Your task to perform on an android device: turn pop-ups on in chrome Image 0: 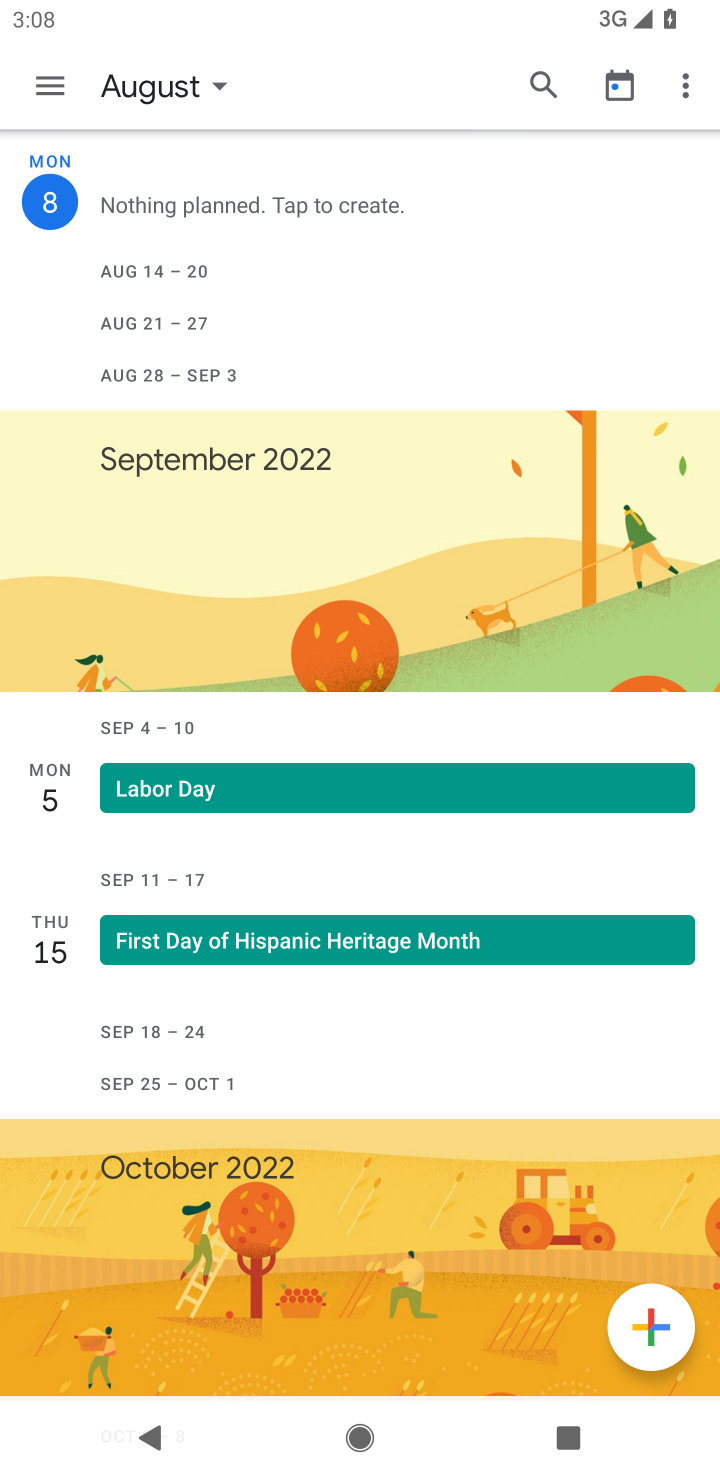
Step 0: press home button
Your task to perform on an android device: turn pop-ups on in chrome Image 1: 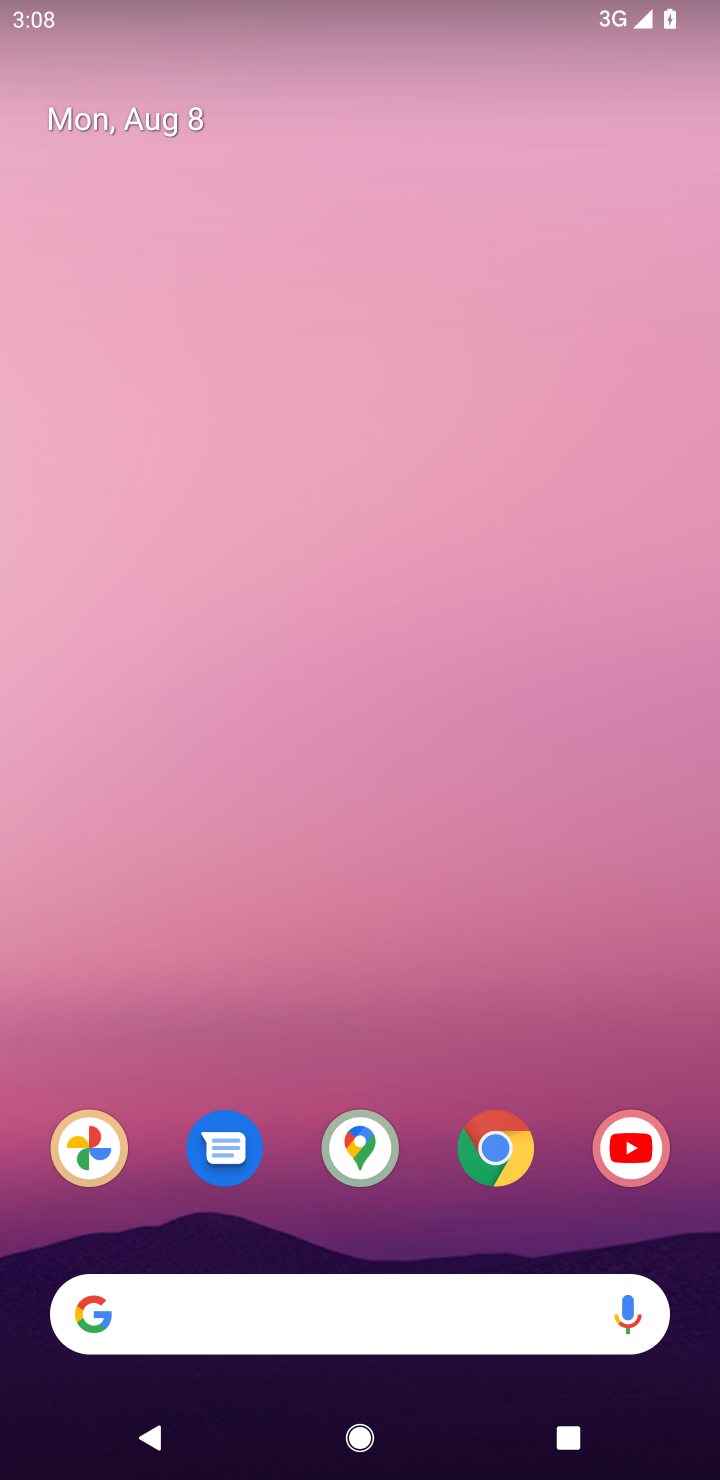
Step 1: click (507, 1165)
Your task to perform on an android device: turn pop-ups on in chrome Image 2: 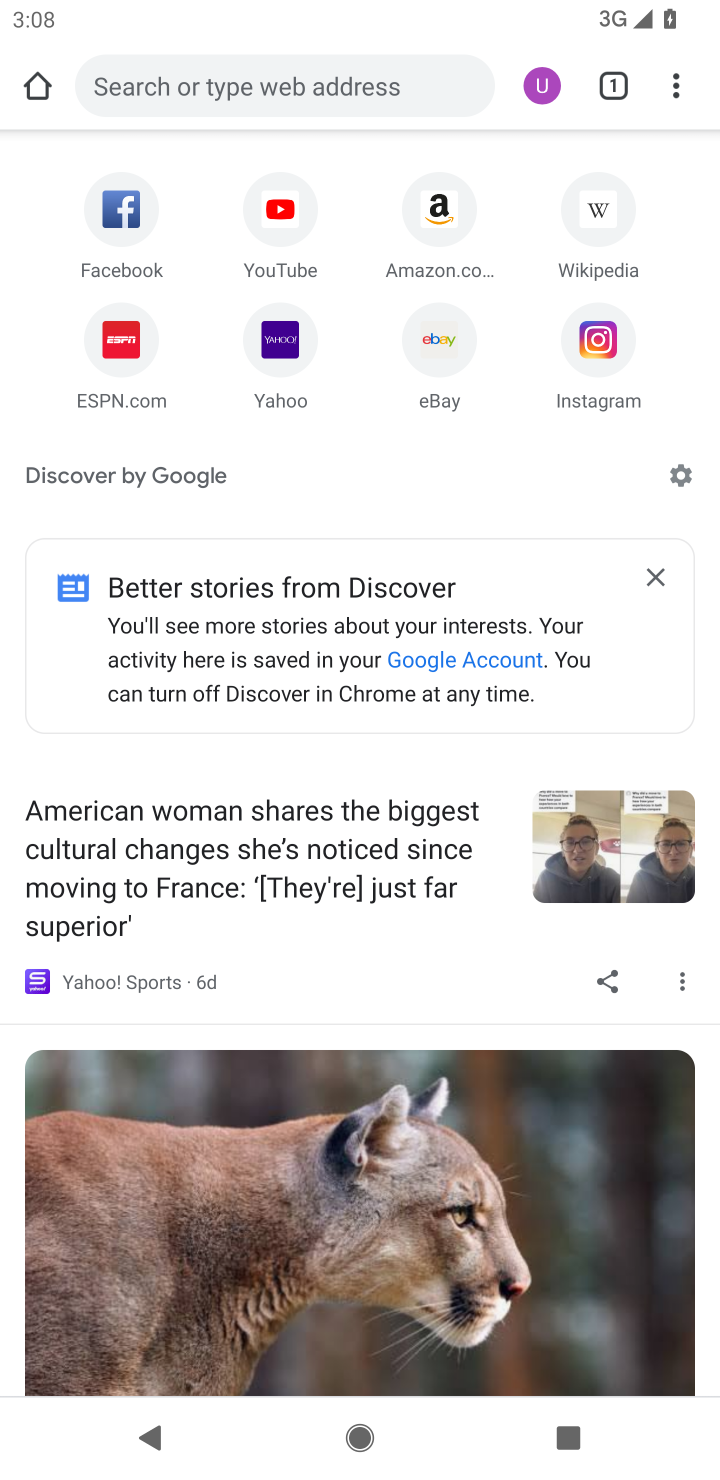
Step 2: click (683, 71)
Your task to perform on an android device: turn pop-ups on in chrome Image 3: 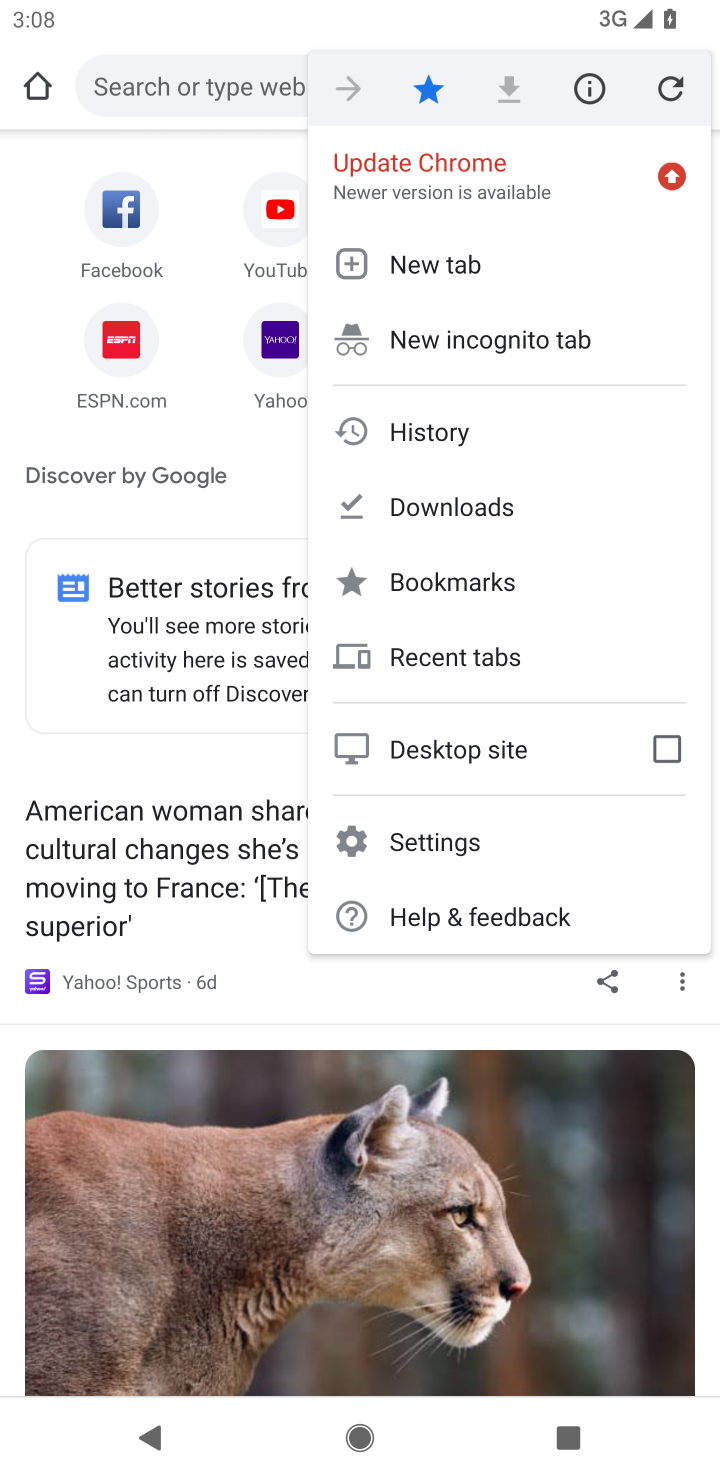
Step 3: click (482, 831)
Your task to perform on an android device: turn pop-ups on in chrome Image 4: 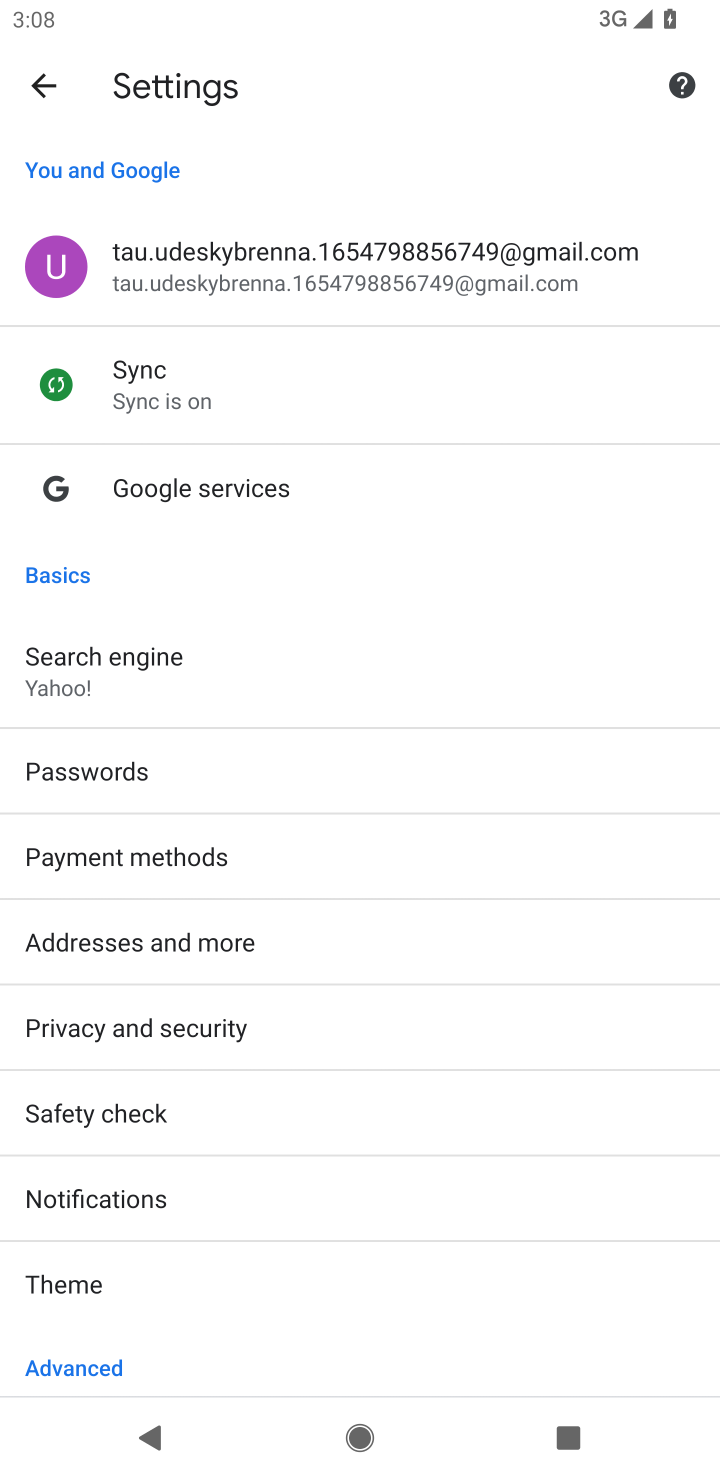
Step 4: drag from (274, 1287) to (326, 322)
Your task to perform on an android device: turn pop-ups on in chrome Image 5: 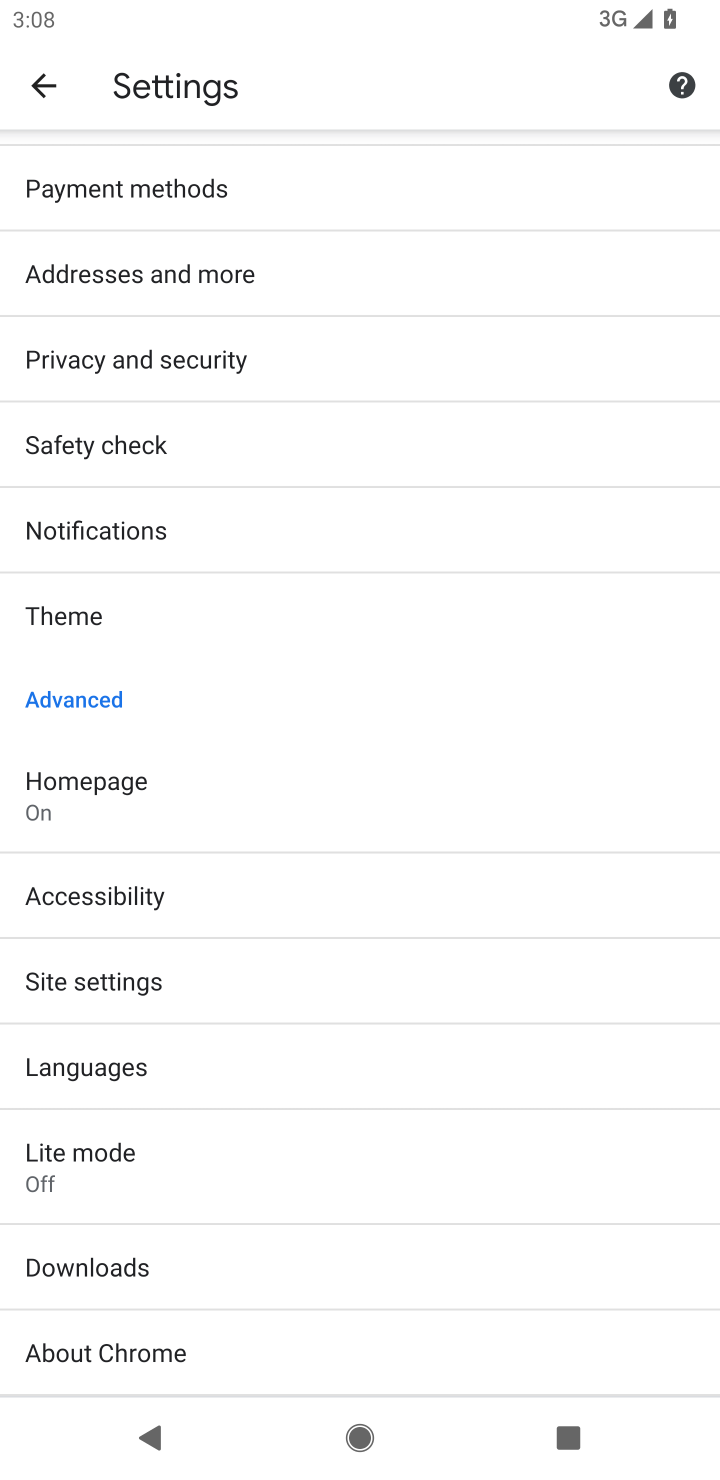
Step 5: click (157, 978)
Your task to perform on an android device: turn pop-ups on in chrome Image 6: 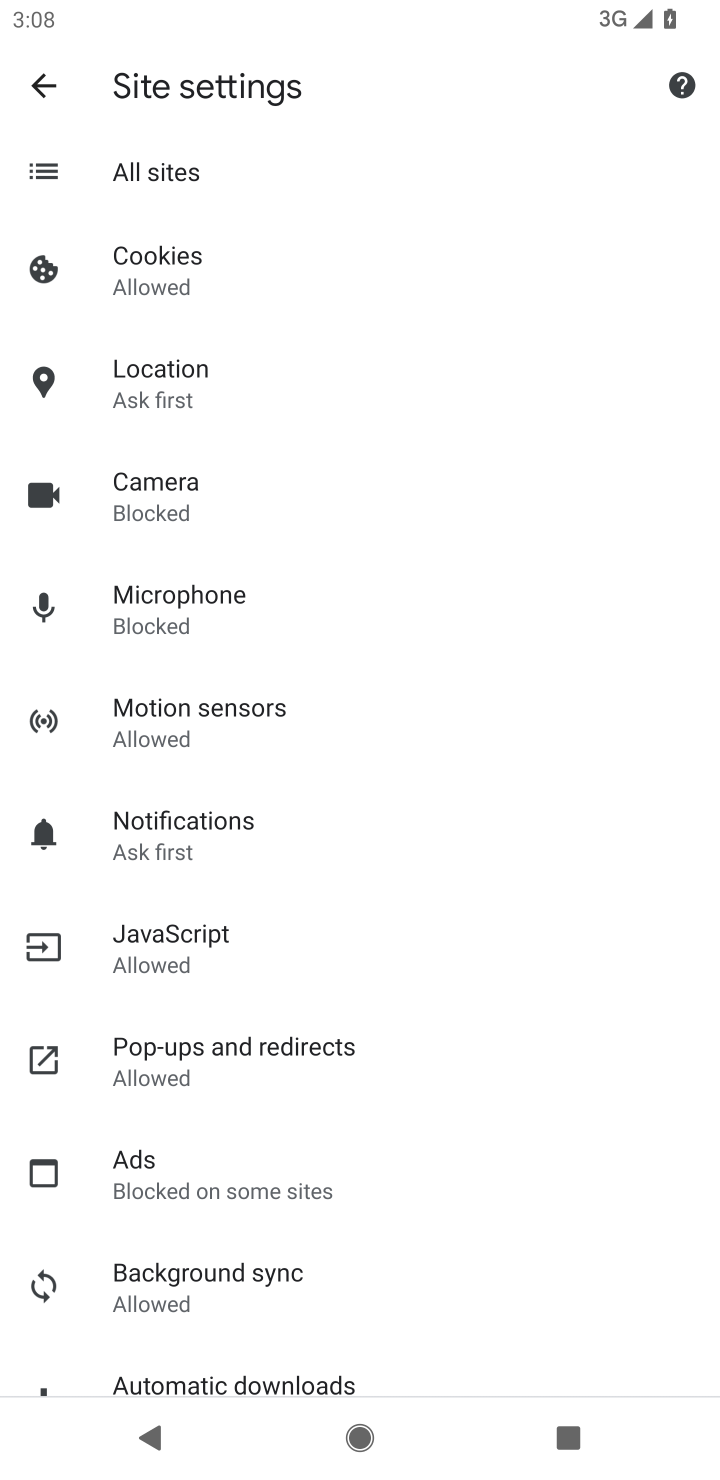
Step 6: click (205, 1051)
Your task to perform on an android device: turn pop-ups on in chrome Image 7: 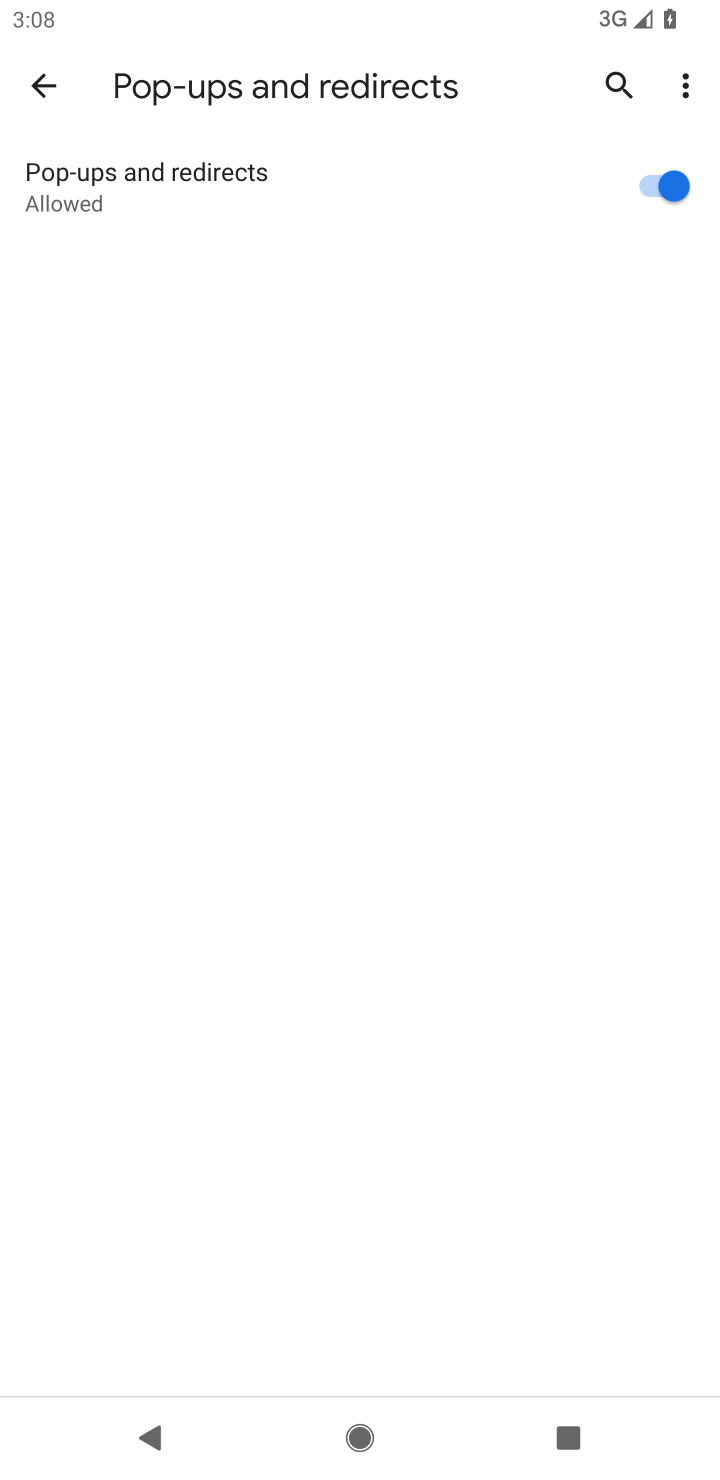
Step 7: task complete